Your task to perform on an android device: What's the weather going to be tomorrow? Image 0: 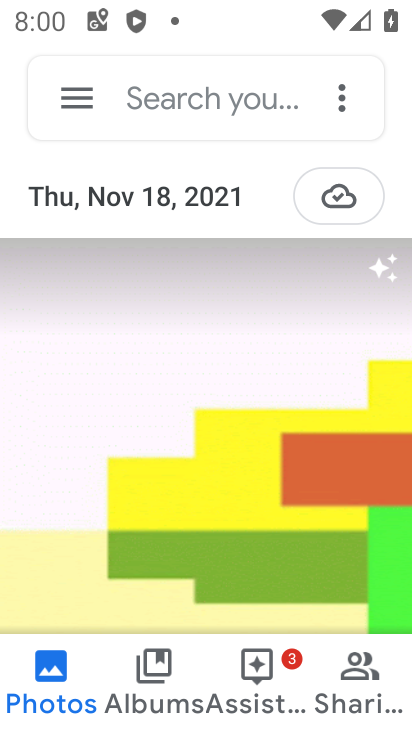
Step 0: press home button
Your task to perform on an android device: What's the weather going to be tomorrow? Image 1: 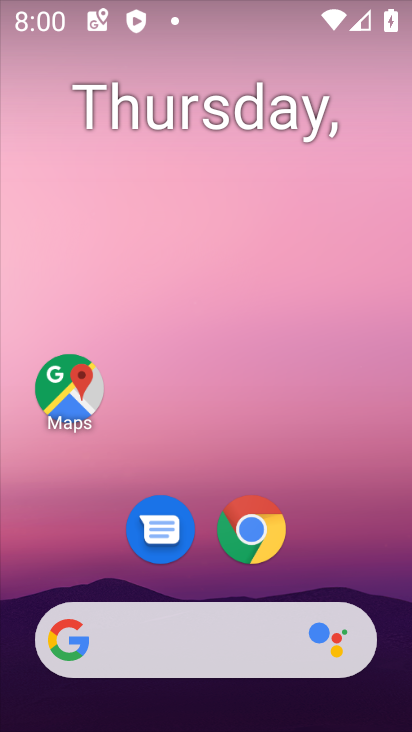
Step 1: drag from (240, 721) to (212, 103)
Your task to perform on an android device: What's the weather going to be tomorrow? Image 2: 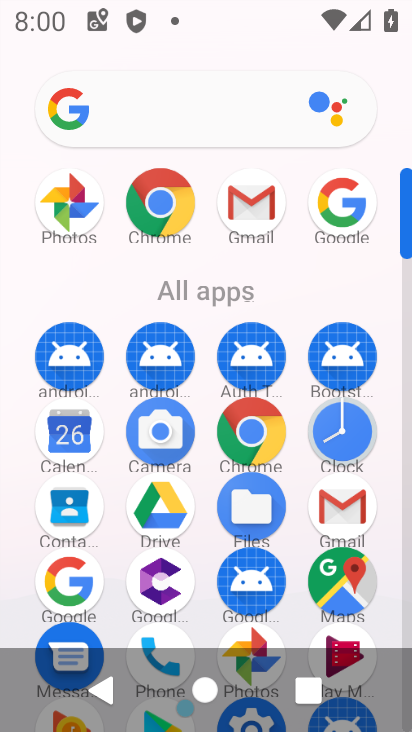
Step 2: click (70, 574)
Your task to perform on an android device: What's the weather going to be tomorrow? Image 3: 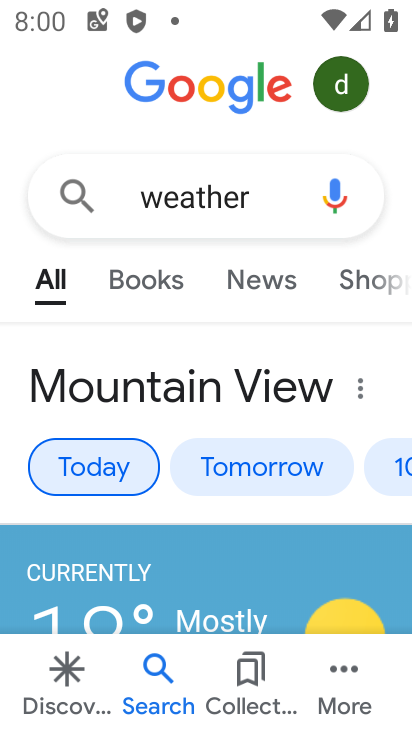
Step 3: click (261, 472)
Your task to perform on an android device: What's the weather going to be tomorrow? Image 4: 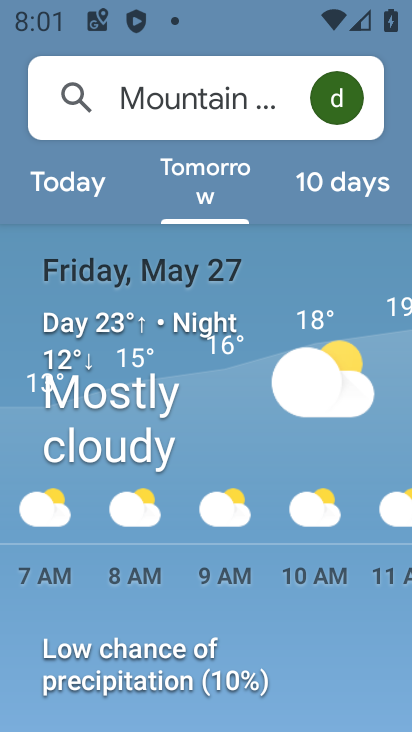
Step 4: task complete